Your task to perform on an android device: change the clock display to digital Image 0: 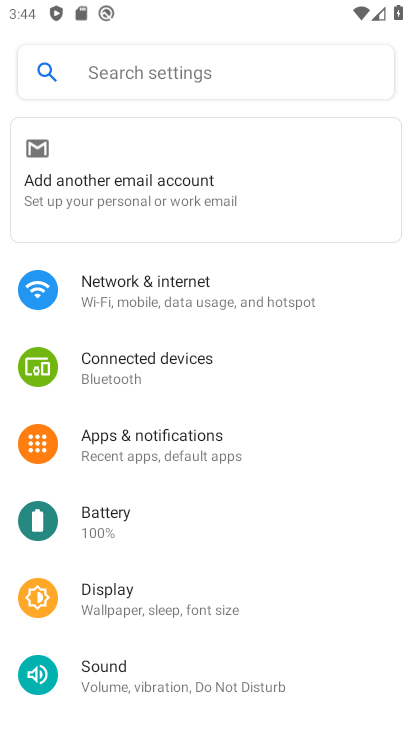
Step 0: press home button
Your task to perform on an android device: change the clock display to digital Image 1: 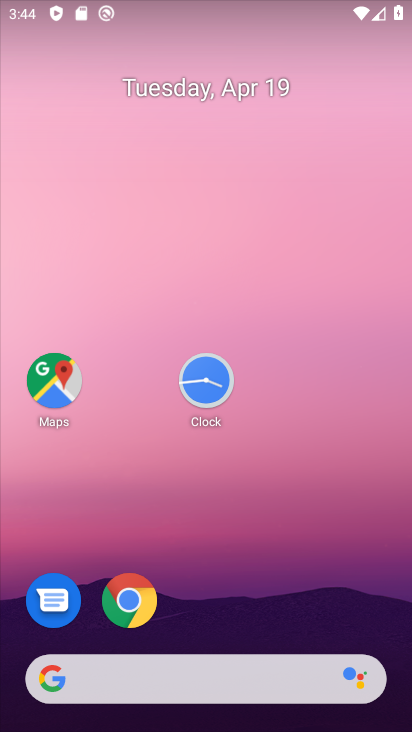
Step 1: click (205, 395)
Your task to perform on an android device: change the clock display to digital Image 2: 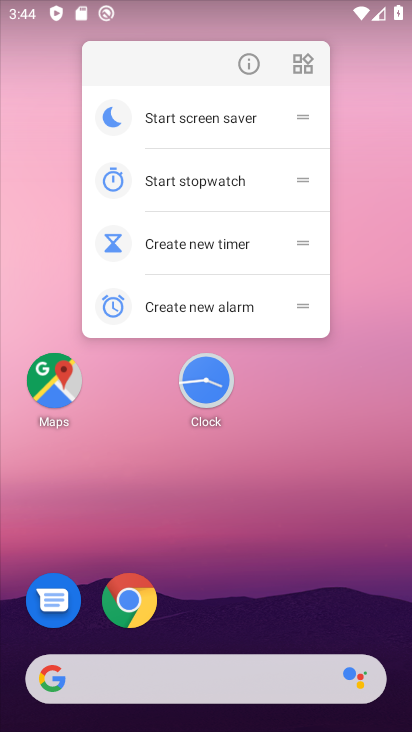
Step 2: click (205, 395)
Your task to perform on an android device: change the clock display to digital Image 3: 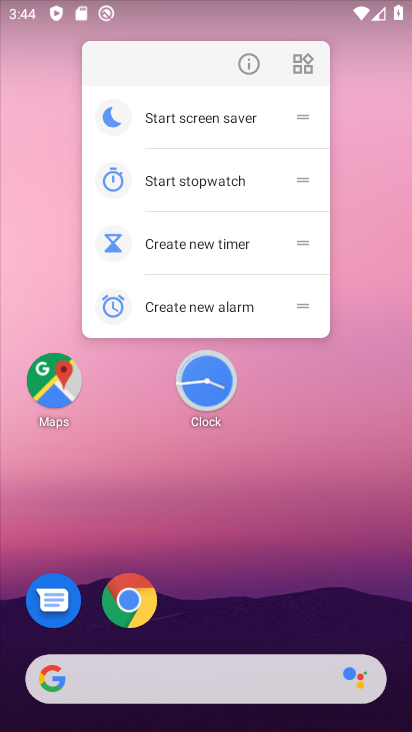
Step 3: click (208, 396)
Your task to perform on an android device: change the clock display to digital Image 4: 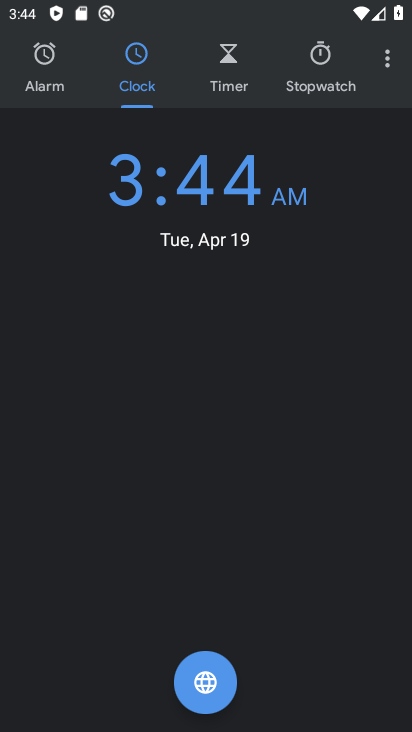
Step 4: click (384, 63)
Your task to perform on an android device: change the clock display to digital Image 5: 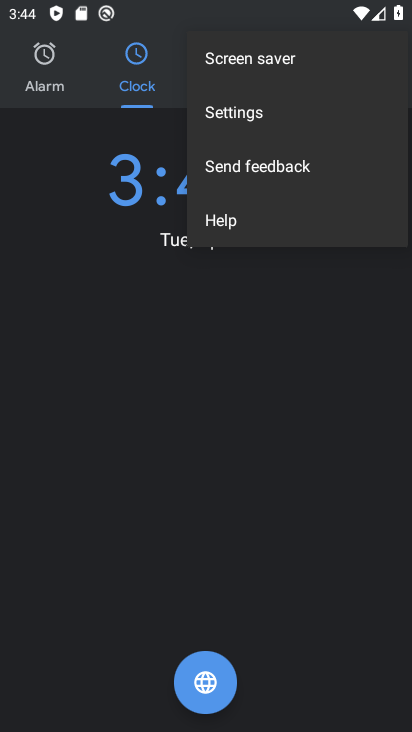
Step 5: click (234, 119)
Your task to perform on an android device: change the clock display to digital Image 6: 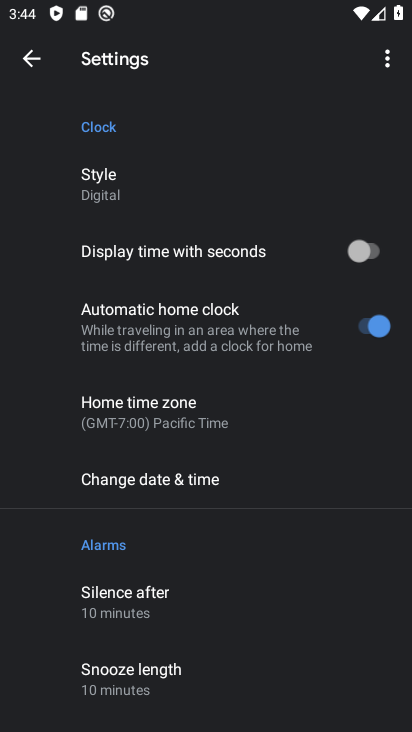
Step 6: click (149, 177)
Your task to perform on an android device: change the clock display to digital Image 7: 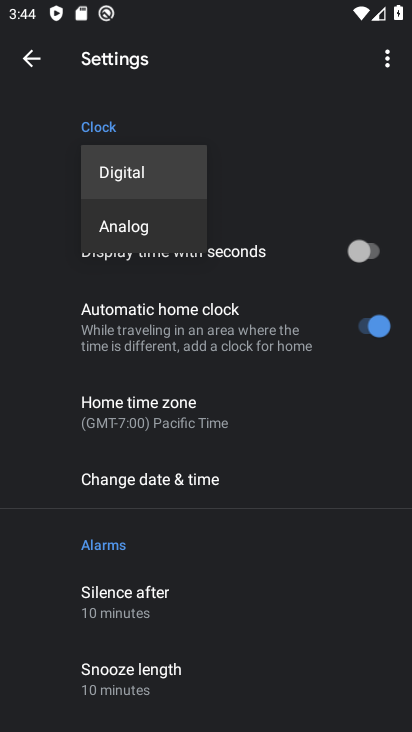
Step 7: click (153, 176)
Your task to perform on an android device: change the clock display to digital Image 8: 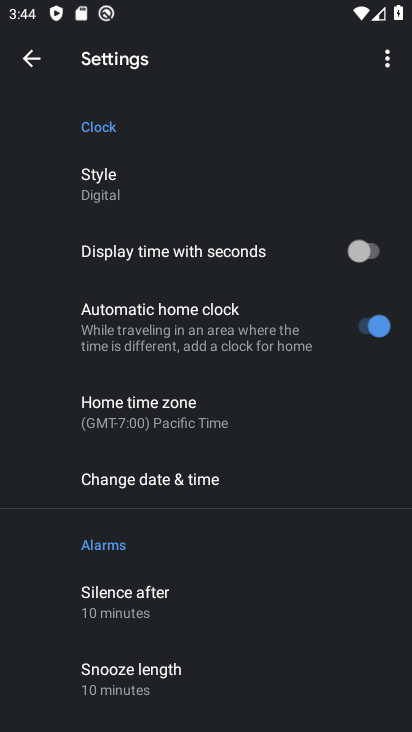
Step 8: task complete